Your task to perform on an android device: Open the Play Movies app and select the watchlist tab. Image 0: 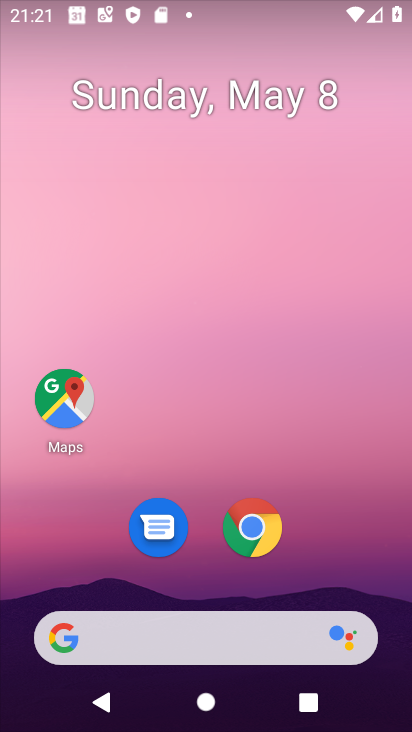
Step 0: drag from (202, 564) to (181, 152)
Your task to perform on an android device: Open the Play Movies app and select the watchlist tab. Image 1: 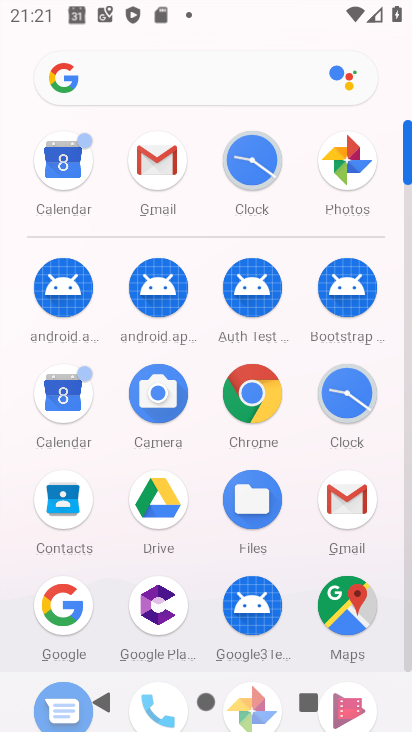
Step 1: drag from (303, 643) to (297, 320)
Your task to perform on an android device: Open the Play Movies app and select the watchlist tab. Image 2: 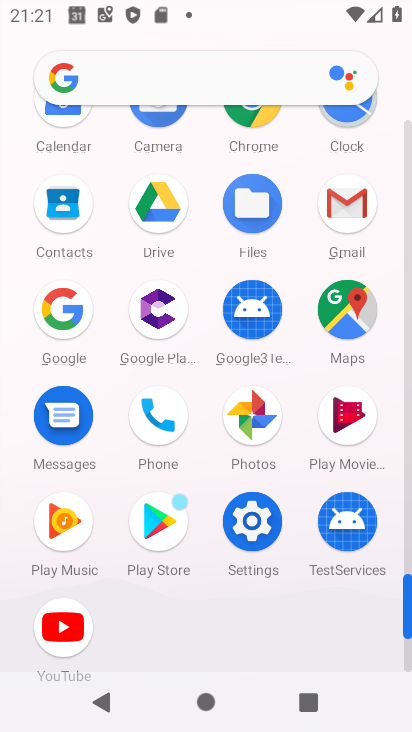
Step 2: click (349, 418)
Your task to perform on an android device: Open the Play Movies app and select the watchlist tab. Image 3: 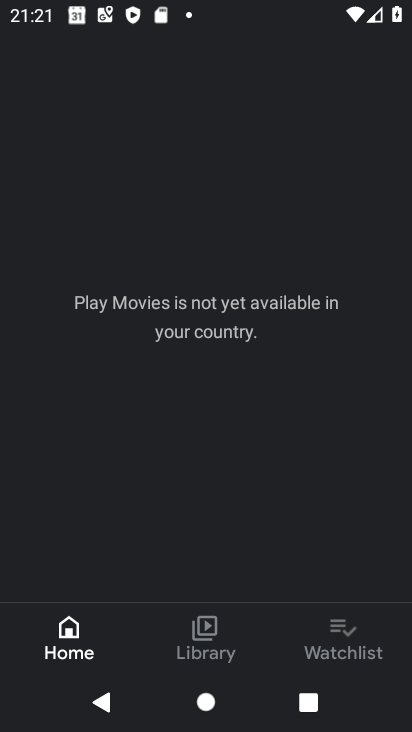
Step 3: click (347, 638)
Your task to perform on an android device: Open the Play Movies app and select the watchlist tab. Image 4: 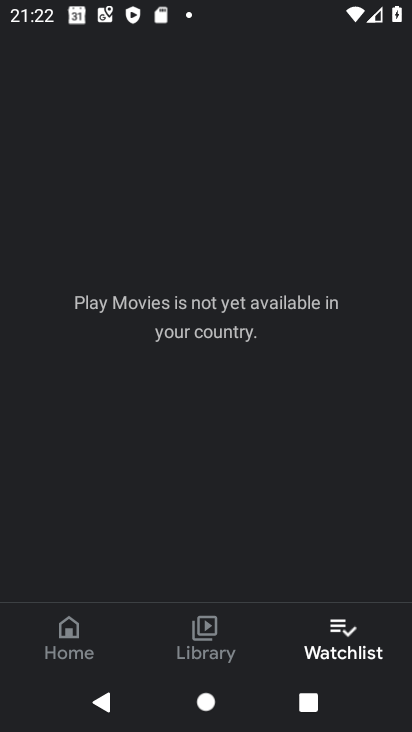
Step 4: task complete